Your task to perform on an android device: Open the calendar app, open the side menu, and click the "Day" option Image 0: 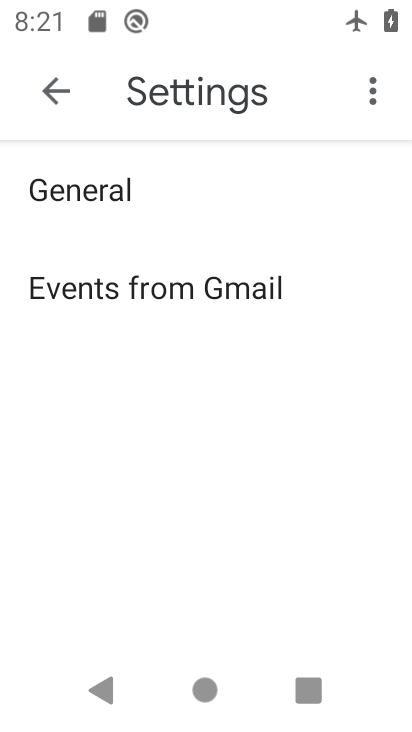
Step 0: press home button
Your task to perform on an android device: Open the calendar app, open the side menu, and click the "Day" option Image 1: 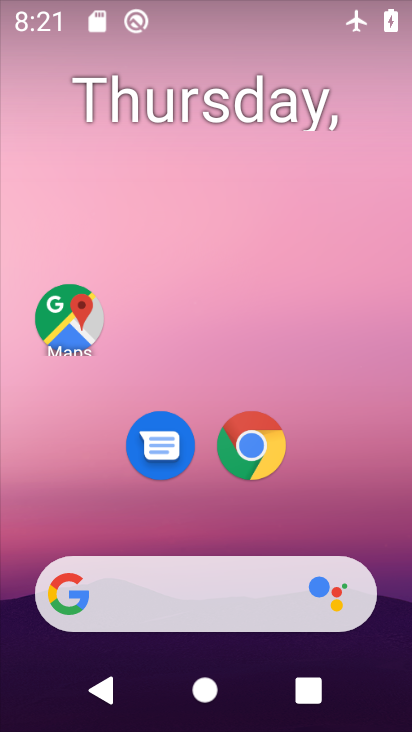
Step 1: drag from (243, 525) to (235, 79)
Your task to perform on an android device: Open the calendar app, open the side menu, and click the "Day" option Image 2: 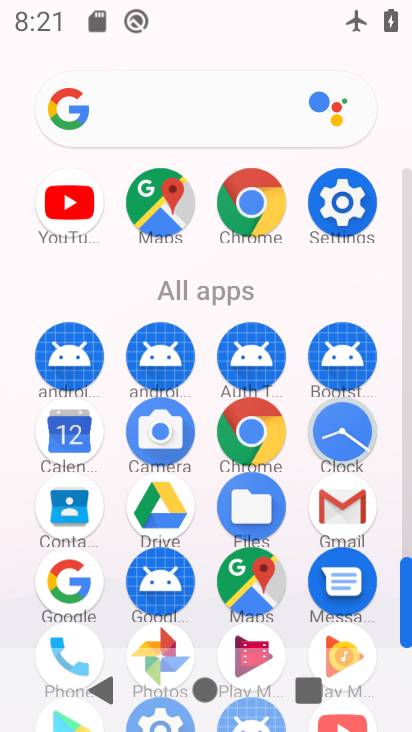
Step 2: click (75, 440)
Your task to perform on an android device: Open the calendar app, open the side menu, and click the "Day" option Image 3: 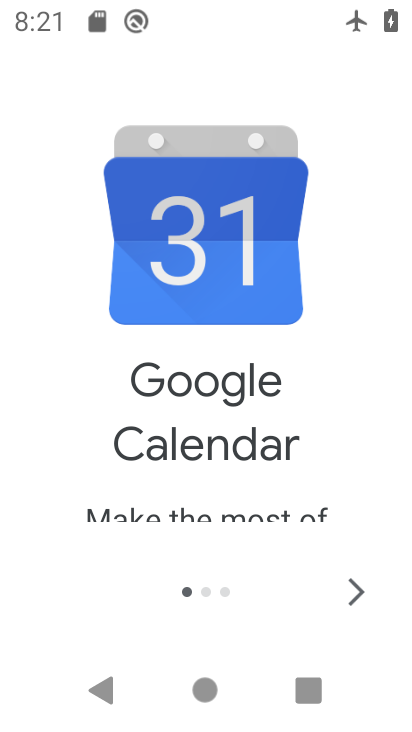
Step 3: click (351, 585)
Your task to perform on an android device: Open the calendar app, open the side menu, and click the "Day" option Image 4: 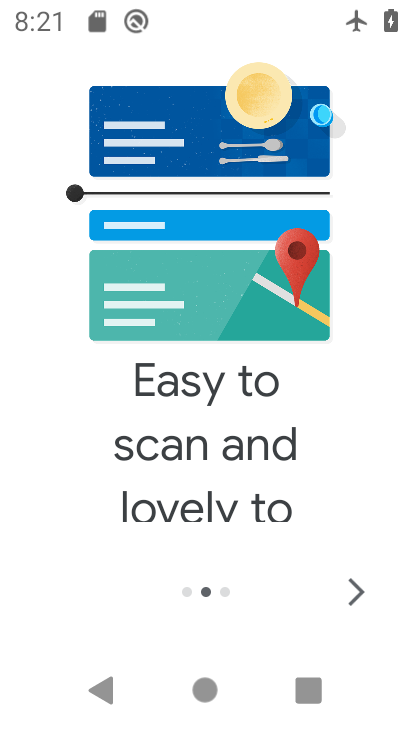
Step 4: click (351, 585)
Your task to perform on an android device: Open the calendar app, open the side menu, and click the "Day" option Image 5: 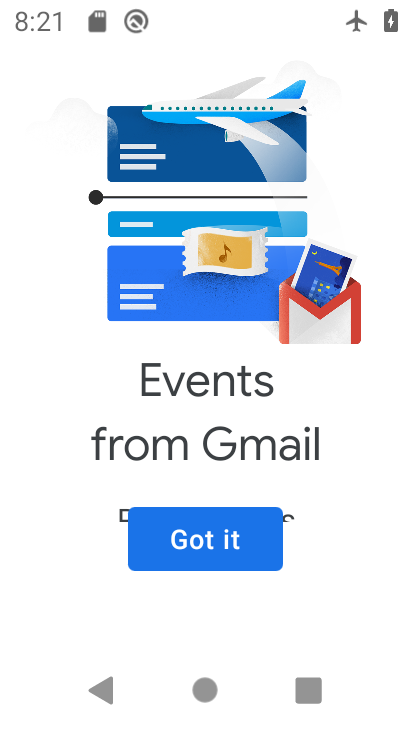
Step 5: click (225, 566)
Your task to perform on an android device: Open the calendar app, open the side menu, and click the "Day" option Image 6: 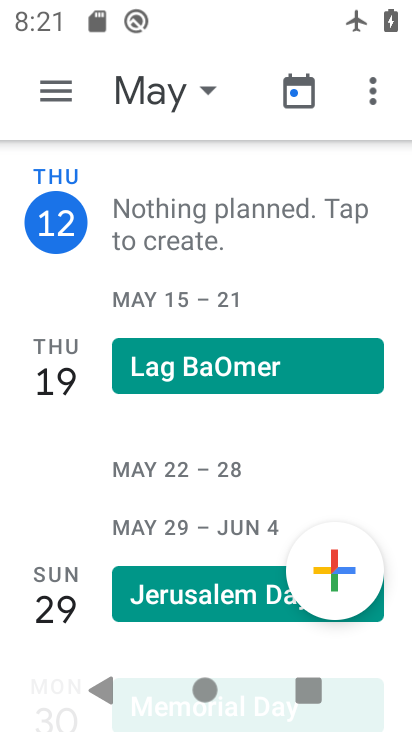
Step 6: click (50, 93)
Your task to perform on an android device: Open the calendar app, open the side menu, and click the "Day" option Image 7: 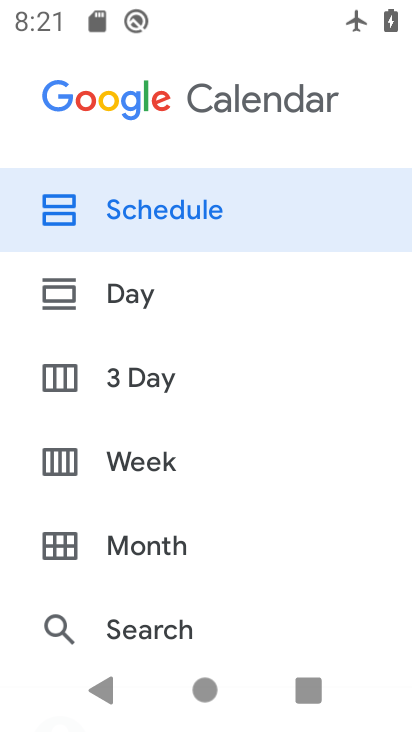
Step 7: click (68, 292)
Your task to perform on an android device: Open the calendar app, open the side menu, and click the "Day" option Image 8: 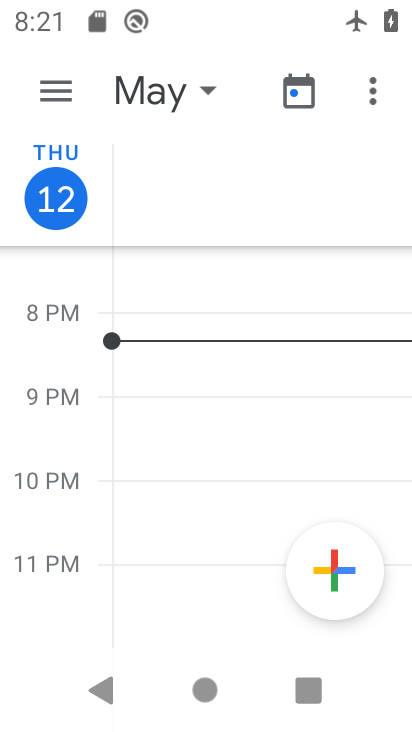
Step 8: task complete